Your task to perform on an android device: turn off picture-in-picture Image 0: 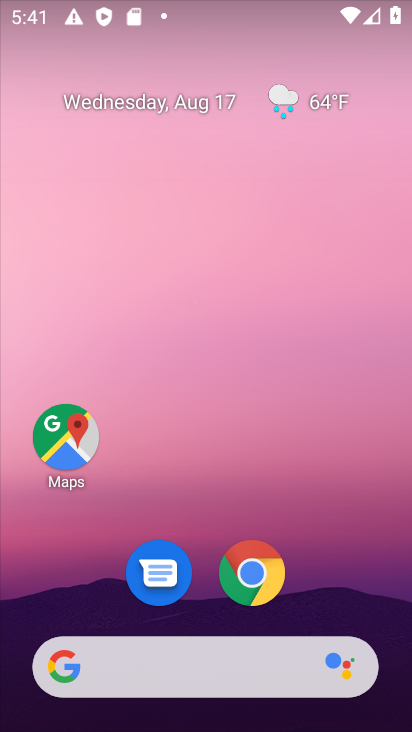
Step 0: click (267, 567)
Your task to perform on an android device: turn off picture-in-picture Image 1: 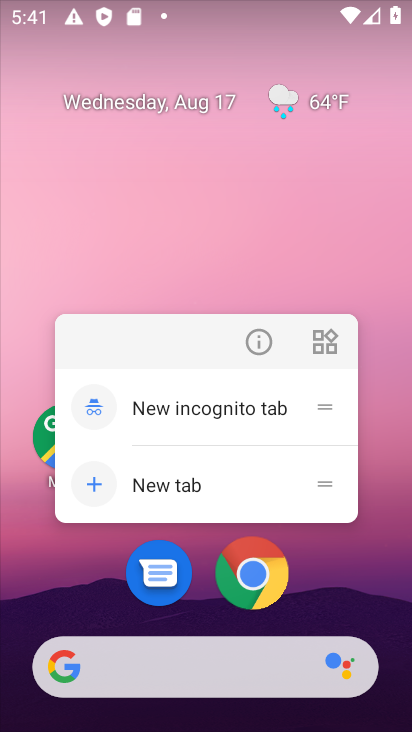
Step 1: click (254, 340)
Your task to perform on an android device: turn off picture-in-picture Image 2: 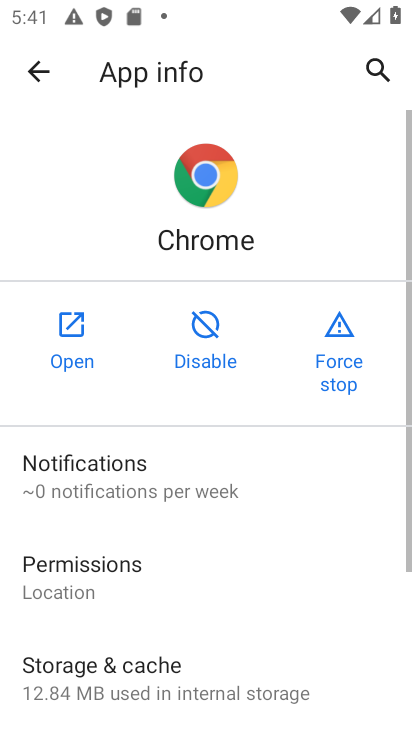
Step 2: drag from (147, 592) to (276, 299)
Your task to perform on an android device: turn off picture-in-picture Image 3: 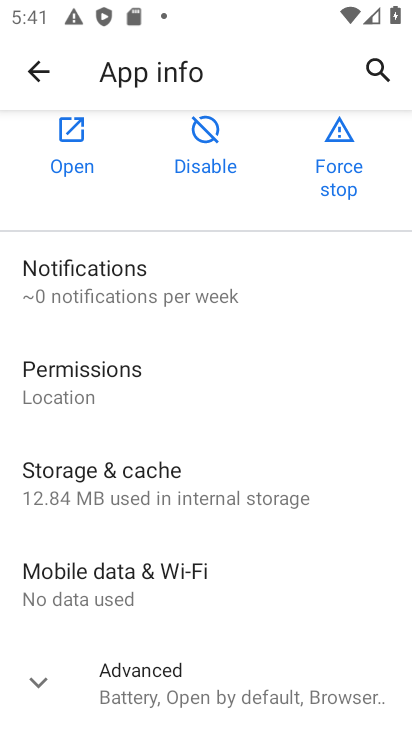
Step 3: click (130, 686)
Your task to perform on an android device: turn off picture-in-picture Image 4: 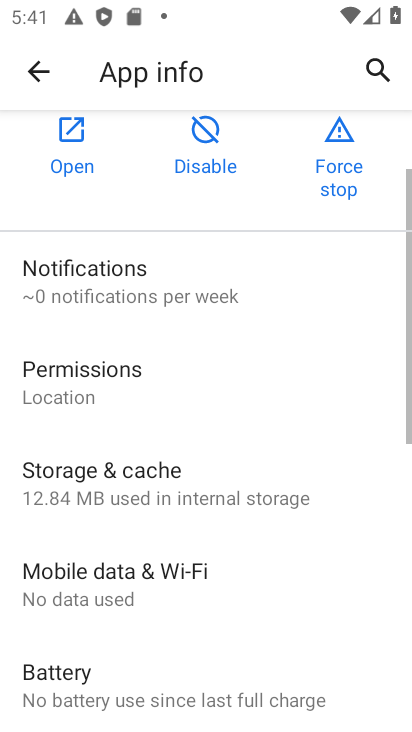
Step 4: drag from (130, 685) to (281, 249)
Your task to perform on an android device: turn off picture-in-picture Image 5: 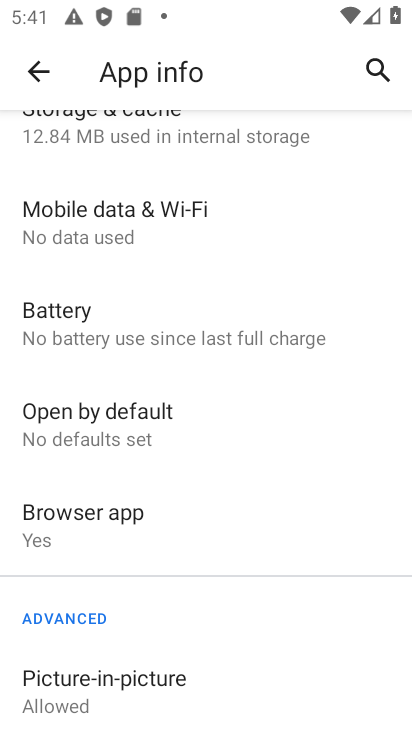
Step 5: drag from (154, 593) to (277, 232)
Your task to perform on an android device: turn off picture-in-picture Image 6: 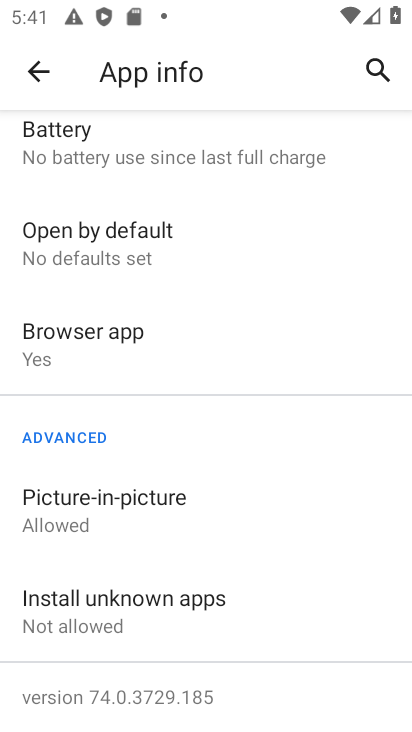
Step 6: click (77, 520)
Your task to perform on an android device: turn off picture-in-picture Image 7: 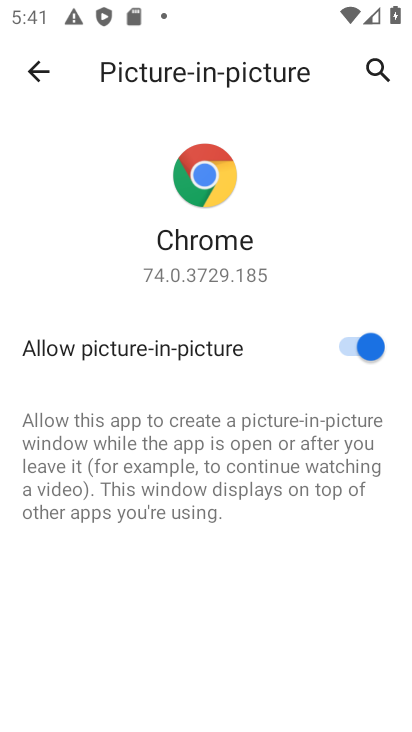
Step 7: click (346, 348)
Your task to perform on an android device: turn off picture-in-picture Image 8: 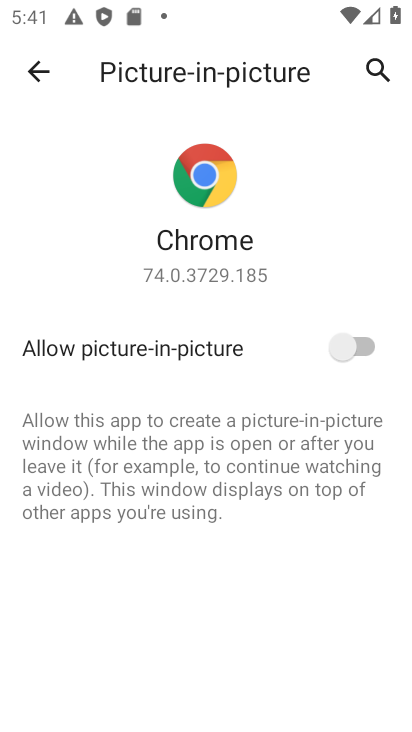
Step 8: task complete